Your task to perform on an android device: add a contact in the contacts app Image 0: 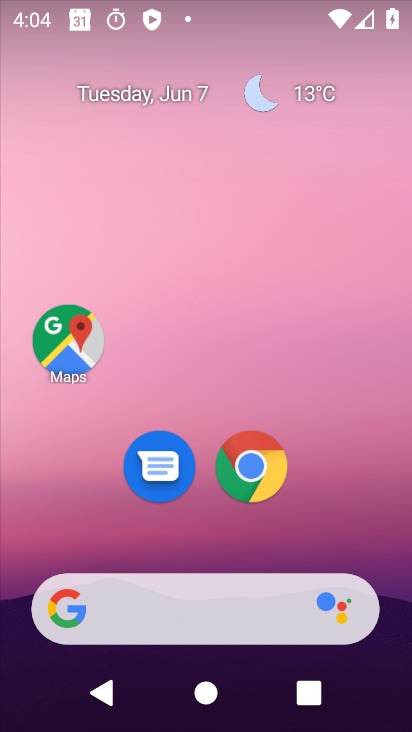
Step 0: drag from (395, 563) to (323, 202)
Your task to perform on an android device: add a contact in the contacts app Image 1: 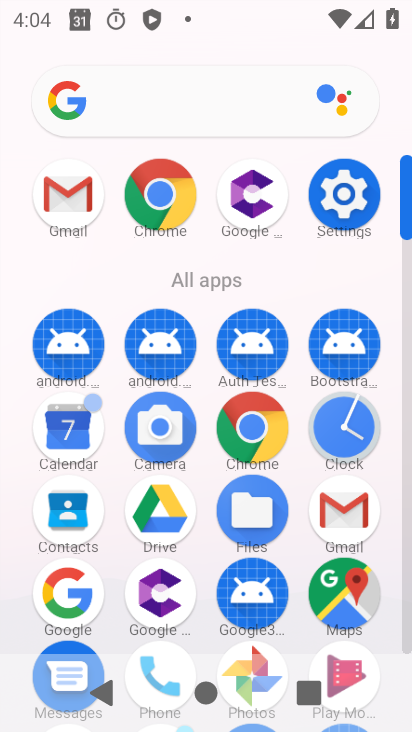
Step 1: click (80, 524)
Your task to perform on an android device: add a contact in the contacts app Image 2: 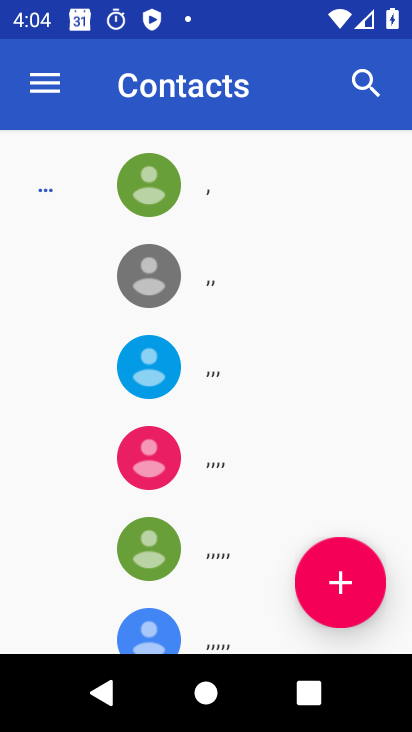
Step 2: click (340, 578)
Your task to perform on an android device: add a contact in the contacts app Image 3: 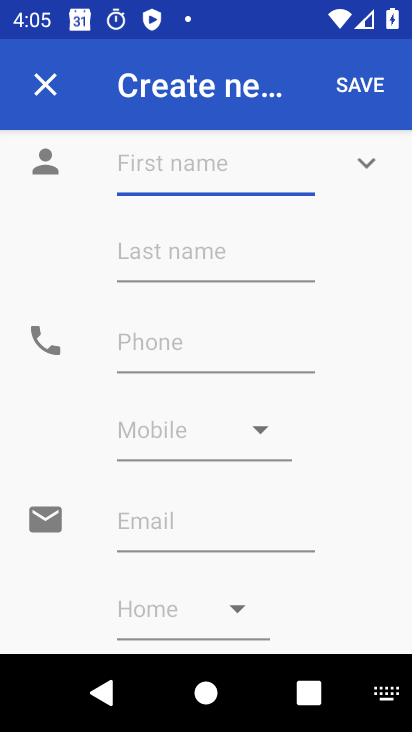
Step 3: click (150, 164)
Your task to perform on an android device: add a contact in the contacts app Image 4: 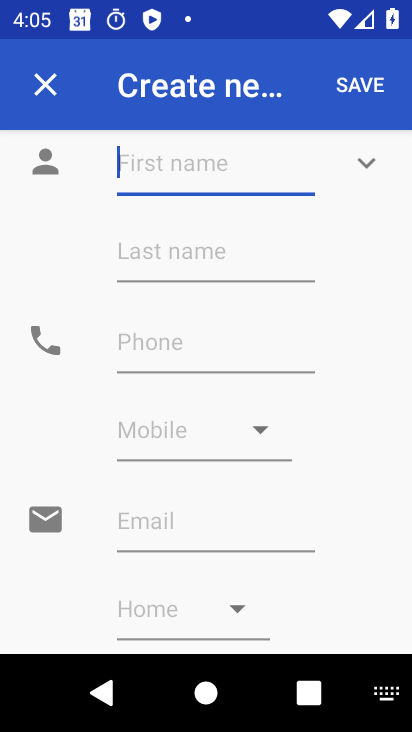
Step 4: type "vjbvbhj"
Your task to perform on an android device: add a contact in the contacts app Image 5: 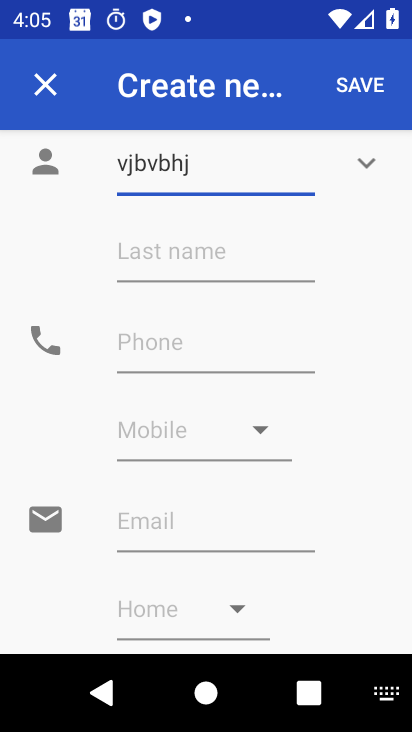
Step 5: click (153, 345)
Your task to perform on an android device: add a contact in the contacts app Image 6: 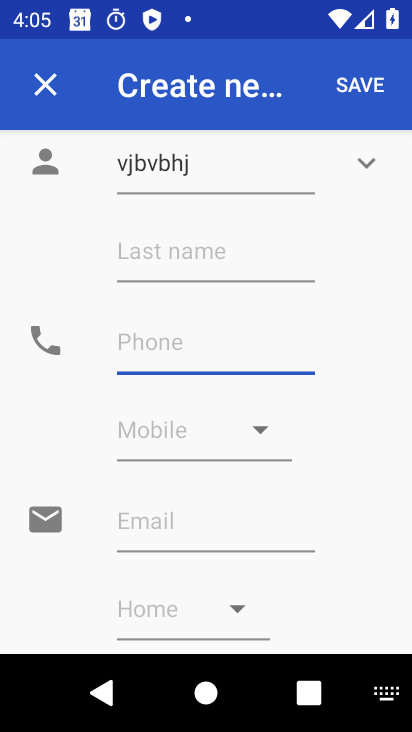
Step 6: type "98789787"
Your task to perform on an android device: add a contact in the contacts app Image 7: 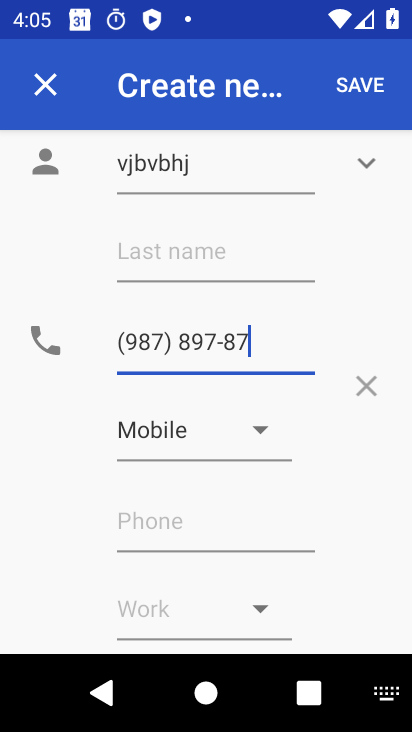
Step 7: click (363, 91)
Your task to perform on an android device: add a contact in the contacts app Image 8: 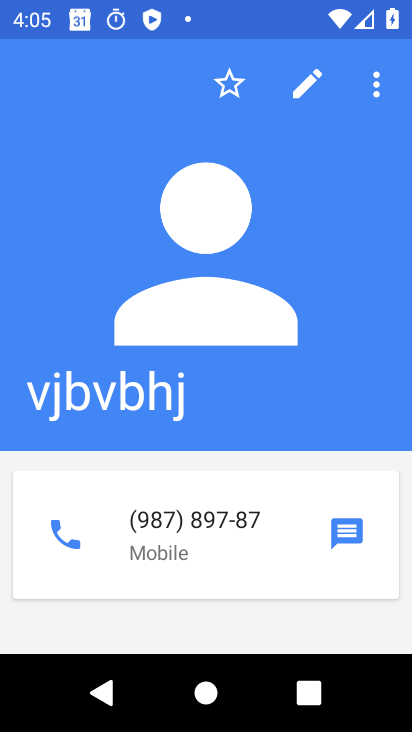
Step 8: task complete